Your task to perform on an android device: Go to privacy settings Image 0: 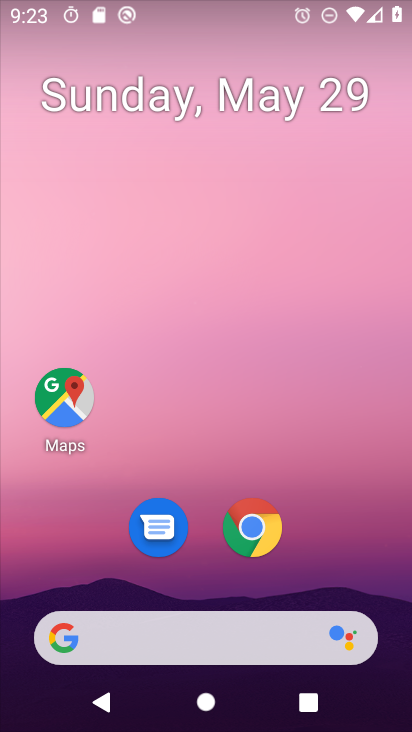
Step 0: drag from (387, 626) to (304, 52)
Your task to perform on an android device: Go to privacy settings Image 1: 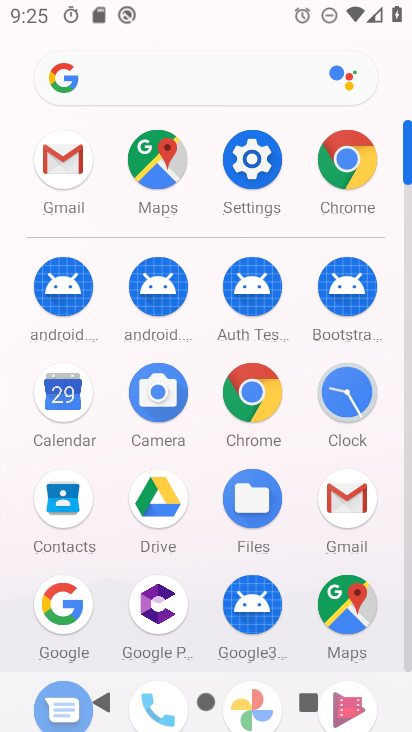
Step 1: click (247, 182)
Your task to perform on an android device: Go to privacy settings Image 2: 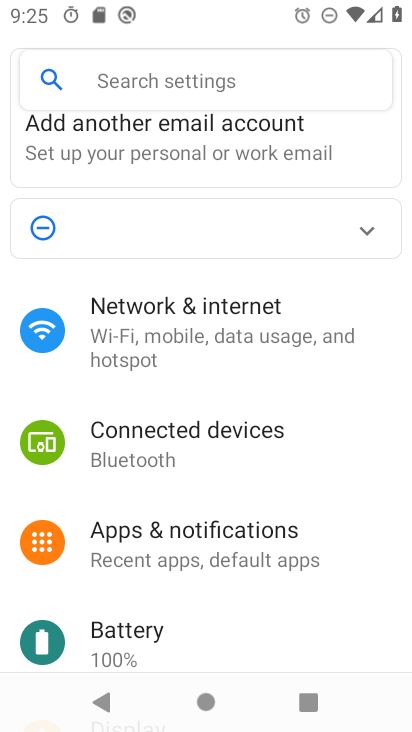
Step 2: drag from (172, 618) to (232, 113)
Your task to perform on an android device: Go to privacy settings Image 3: 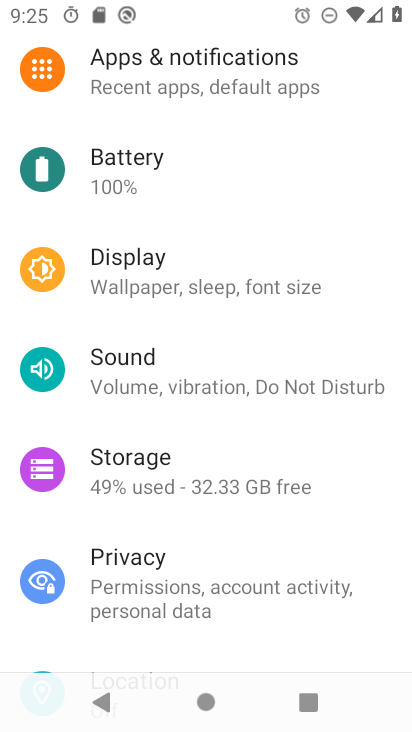
Step 3: click (168, 571)
Your task to perform on an android device: Go to privacy settings Image 4: 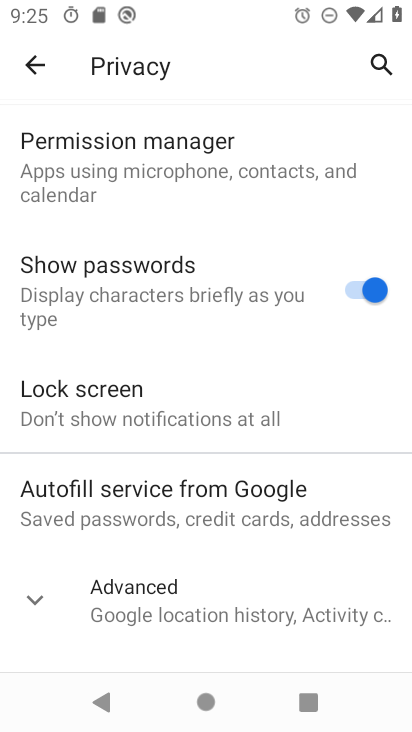
Step 4: task complete